Your task to perform on an android device: Open ESPN.com Image 0: 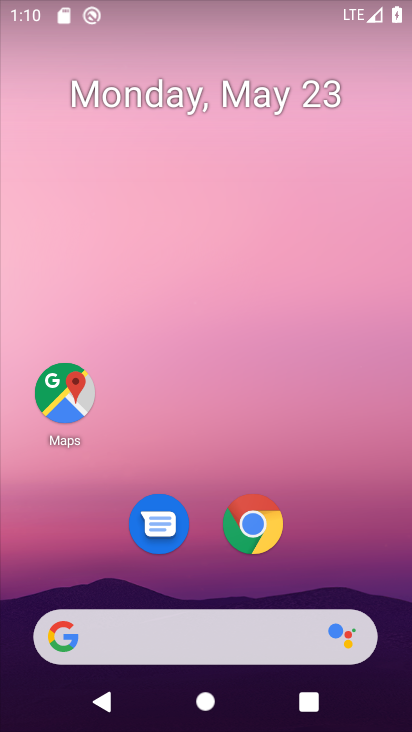
Step 0: click (276, 628)
Your task to perform on an android device: Open ESPN.com Image 1: 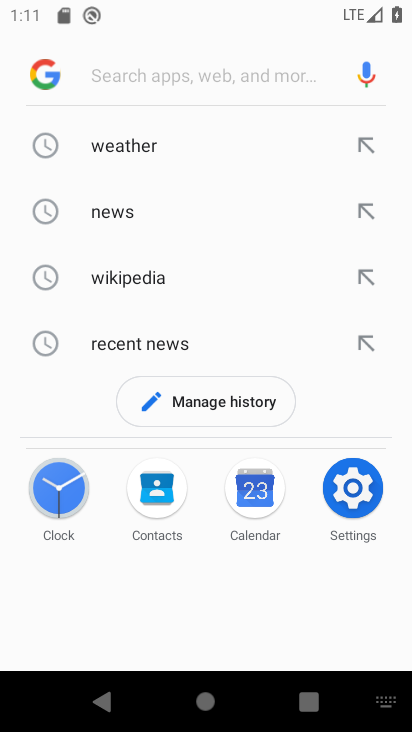
Step 1: type "espn.com"
Your task to perform on an android device: Open ESPN.com Image 2: 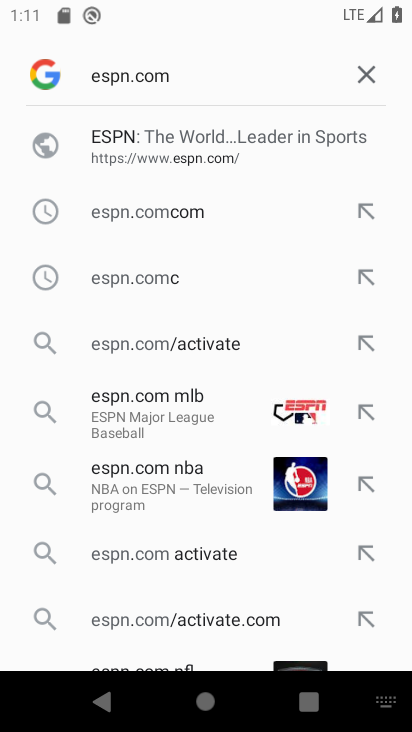
Step 2: click (92, 135)
Your task to perform on an android device: Open ESPN.com Image 3: 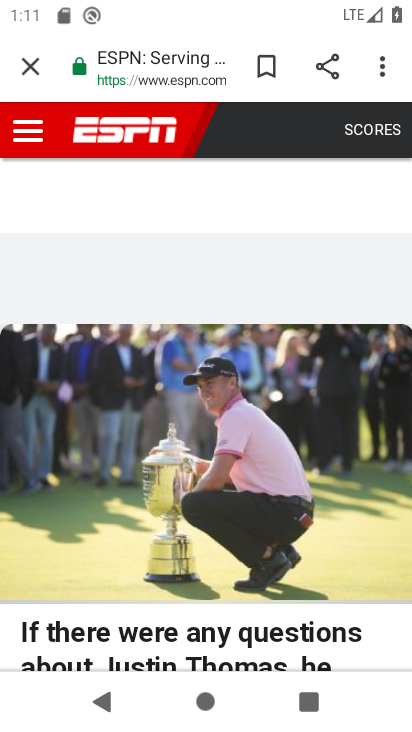
Step 3: task complete